Your task to perform on an android device: Check the news Image 0: 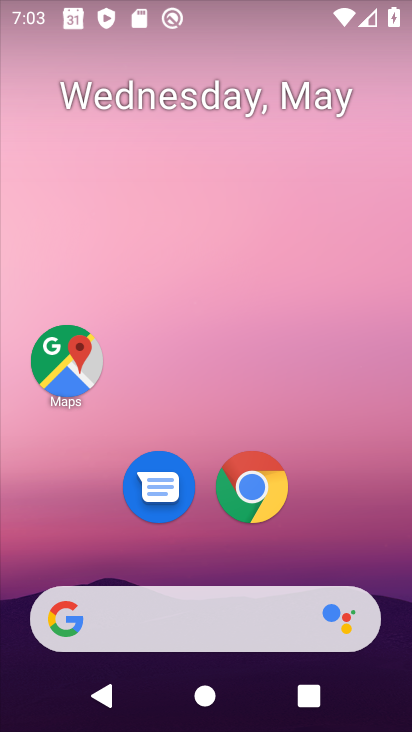
Step 0: click (267, 483)
Your task to perform on an android device: Check the news Image 1: 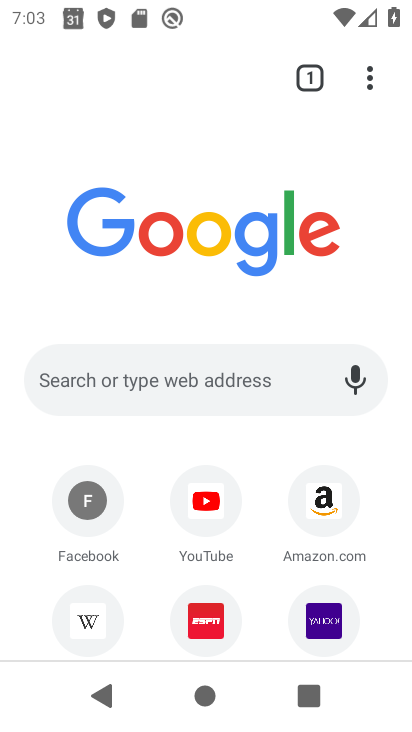
Step 1: task complete